Your task to perform on an android device: Open CNN.com Image 0: 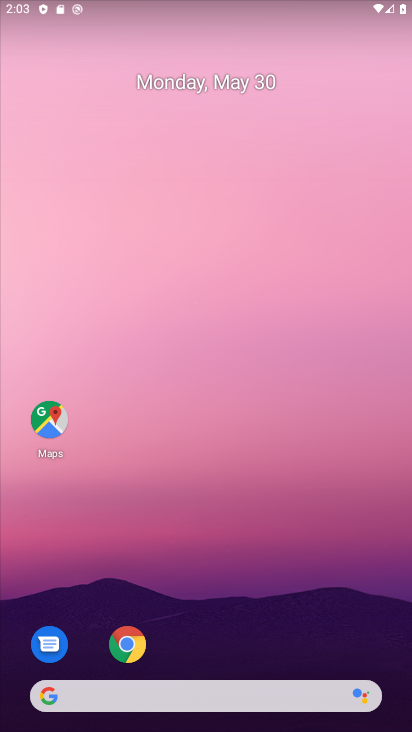
Step 0: click (284, 694)
Your task to perform on an android device: Open CNN.com Image 1: 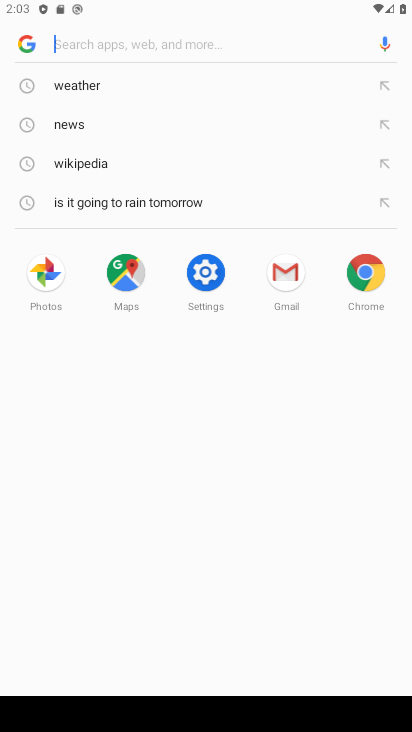
Step 1: type "CNN.com"
Your task to perform on an android device: Open CNN.com Image 2: 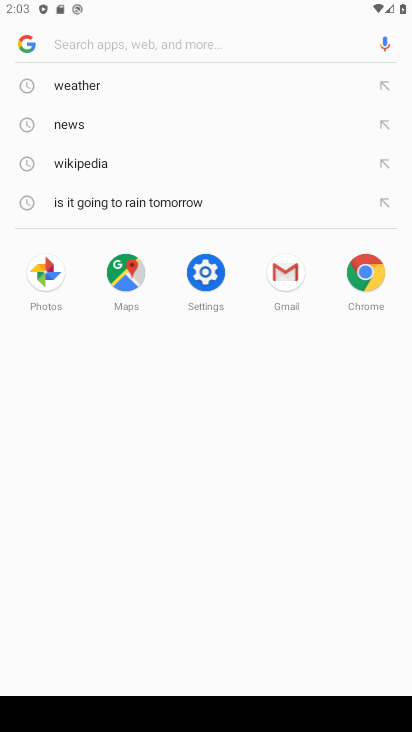
Step 2: click (147, 46)
Your task to perform on an android device: Open CNN.com Image 3: 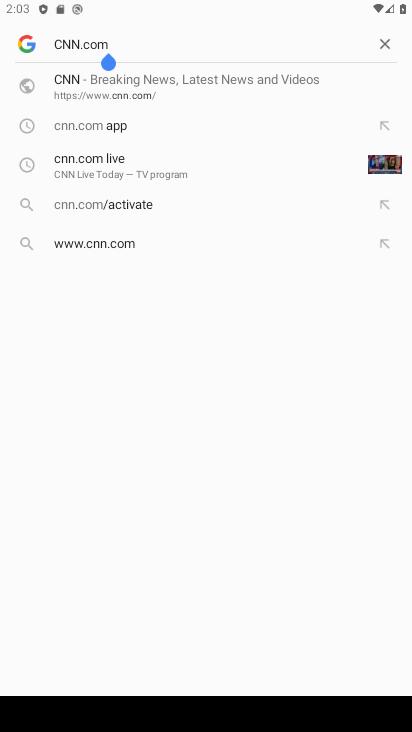
Step 3: click (96, 89)
Your task to perform on an android device: Open CNN.com Image 4: 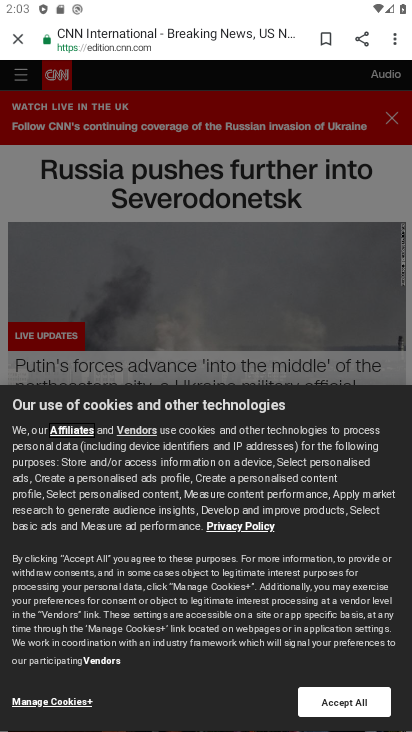
Step 4: task complete